Your task to perform on an android device: allow cookies in the chrome app Image 0: 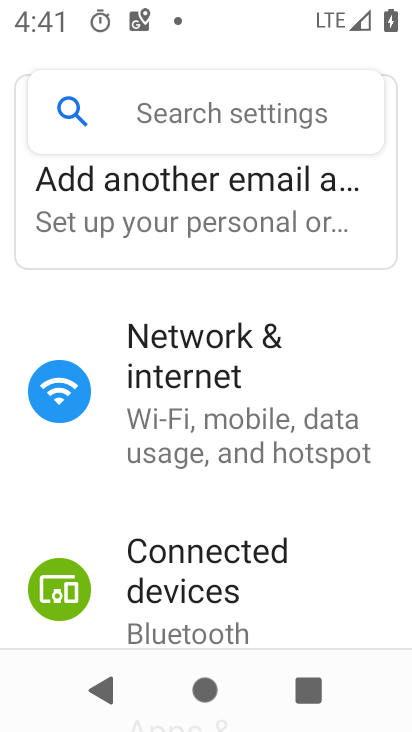
Step 0: press home button
Your task to perform on an android device: allow cookies in the chrome app Image 1: 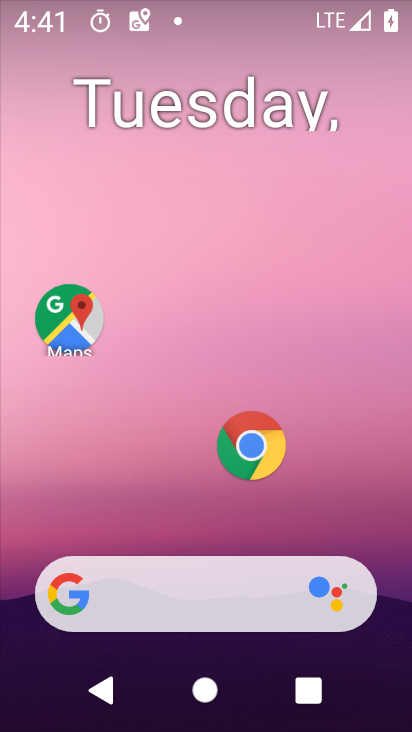
Step 1: click (267, 440)
Your task to perform on an android device: allow cookies in the chrome app Image 2: 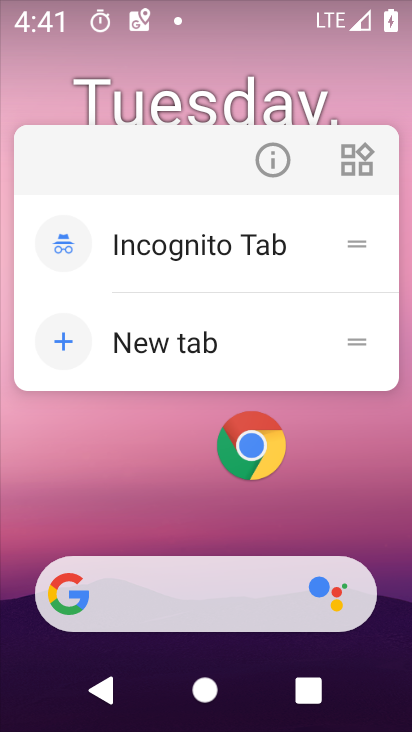
Step 2: click (249, 455)
Your task to perform on an android device: allow cookies in the chrome app Image 3: 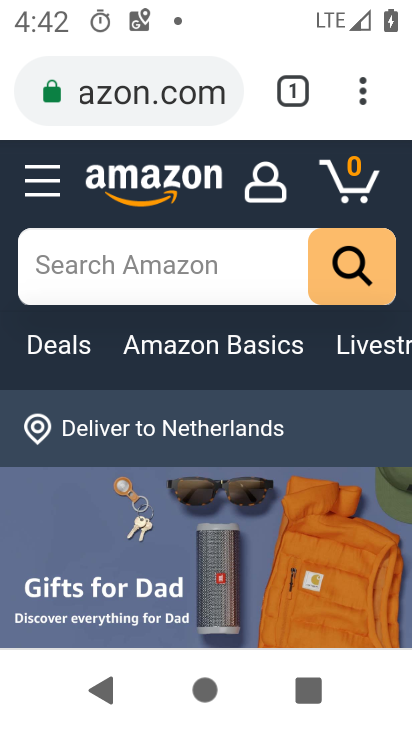
Step 3: click (356, 97)
Your task to perform on an android device: allow cookies in the chrome app Image 4: 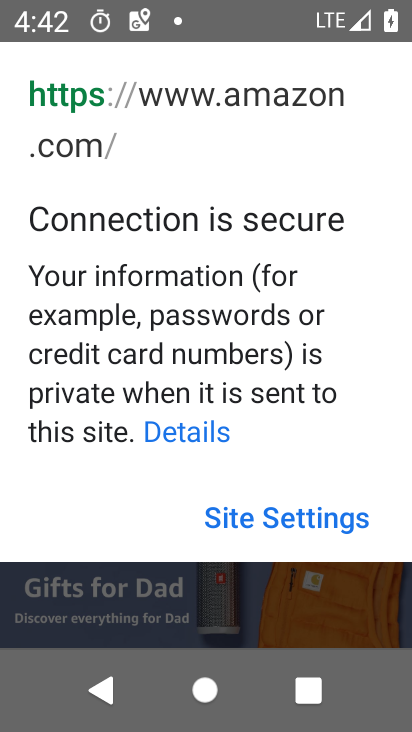
Step 4: click (279, 524)
Your task to perform on an android device: allow cookies in the chrome app Image 5: 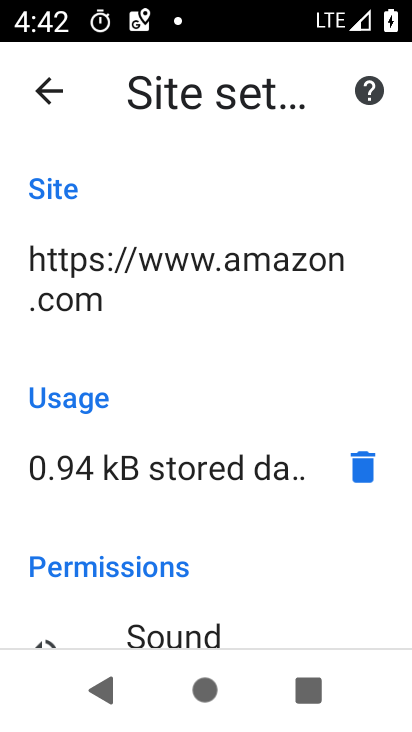
Step 5: drag from (265, 561) to (326, 132)
Your task to perform on an android device: allow cookies in the chrome app Image 6: 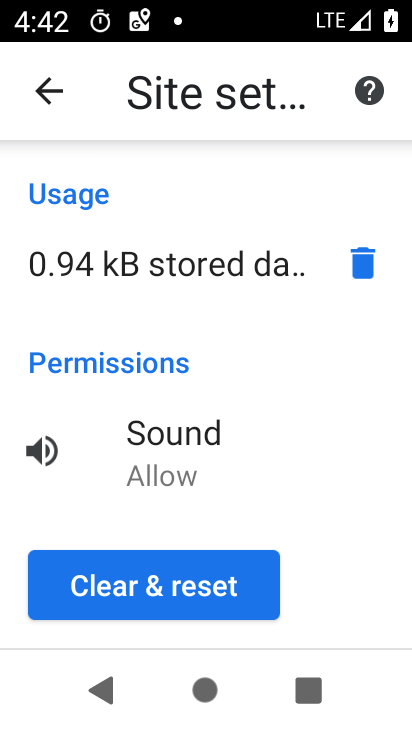
Step 6: click (163, 590)
Your task to perform on an android device: allow cookies in the chrome app Image 7: 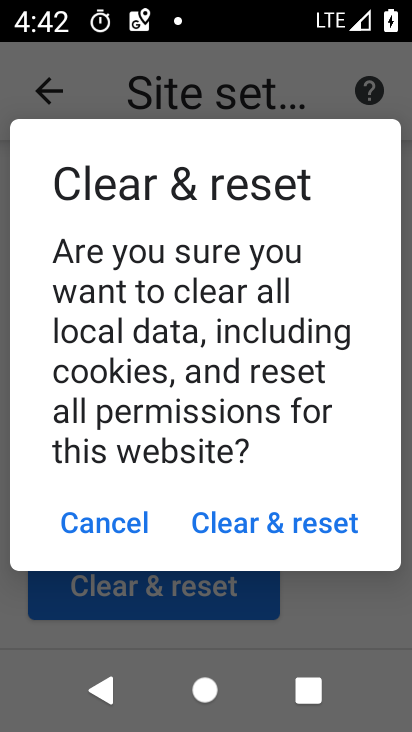
Step 7: click (230, 525)
Your task to perform on an android device: allow cookies in the chrome app Image 8: 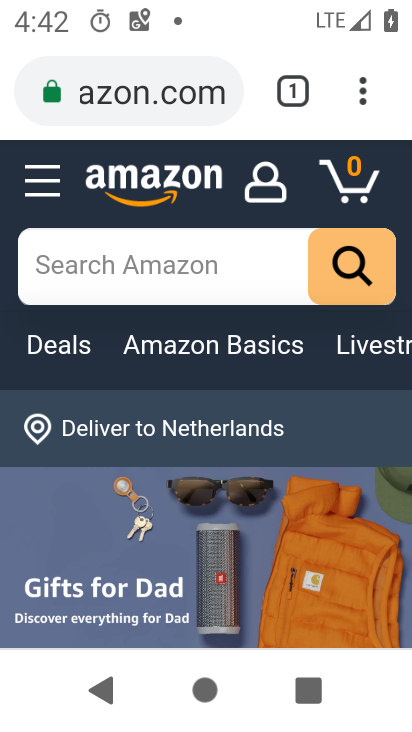
Step 8: click (360, 90)
Your task to perform on an android device: allow cookies in the chrome app Image 9: 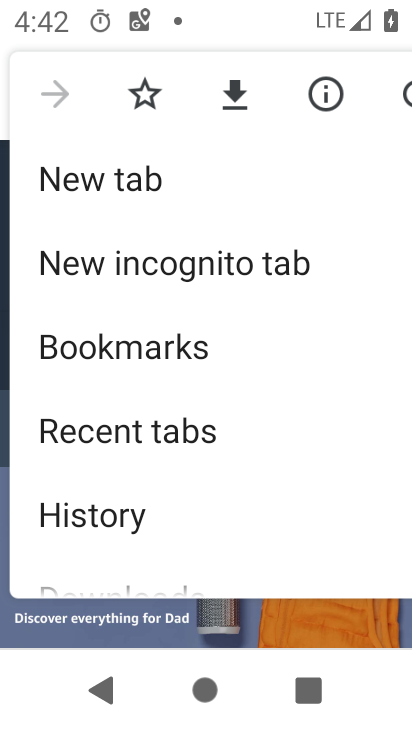
Step 9: click (119, 519)
Your task to perform on an android device: allow cookies in the chrome app Image 10: 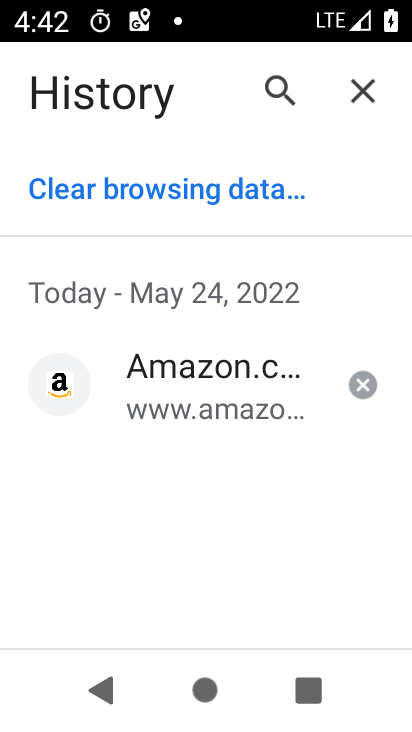
Step 10: click (164, 197)
Your task to perform on an android device: allow cookies in the chrome app Image 11: 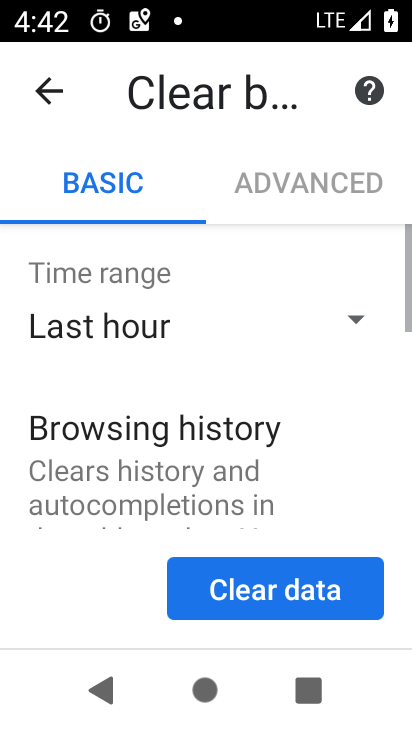
Step 11: drag from (187, 505) to (239, 127)
Your task to perform on an android device: allow cookies in the chrome app Image 12: 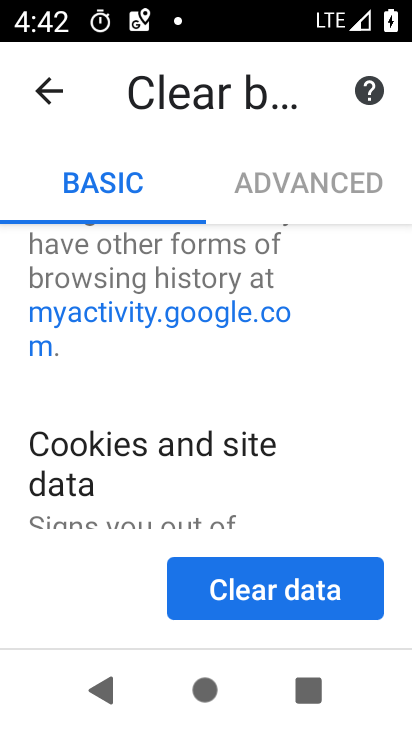
Step 12: drag from (193, 493) to (198, 256)
Your task to perform on an android device: allow cookies in the chrome app Image 13: 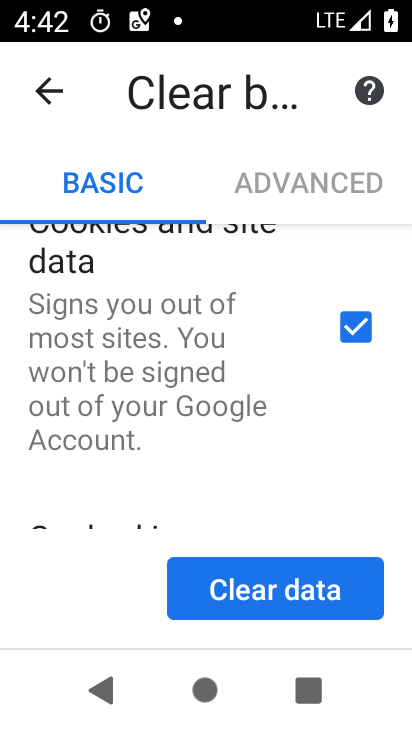
Step 13: drag from (158, 474) to (177, 216)
Your task to perform on an android device: allow cookies in the chrome app Image 14: 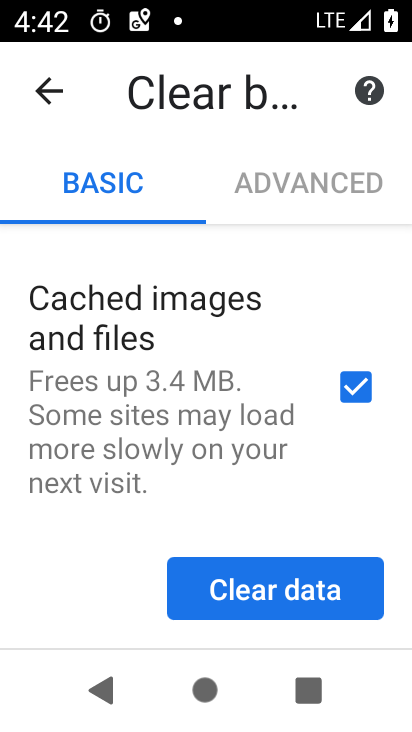
Step 14: drag from (175, 466) to (236, 188)
Your task to perform on an android device: allow cookies in the chrome app Image 15: 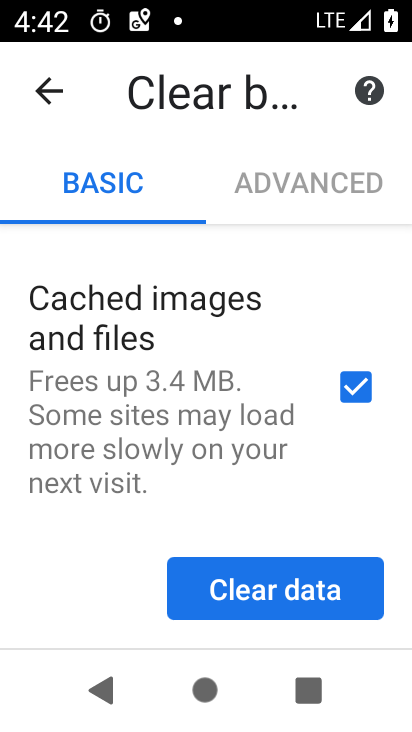
Step 15: click (320, 408)
Your task to perform on an android device: allow cookies in the chrome app Image 16: 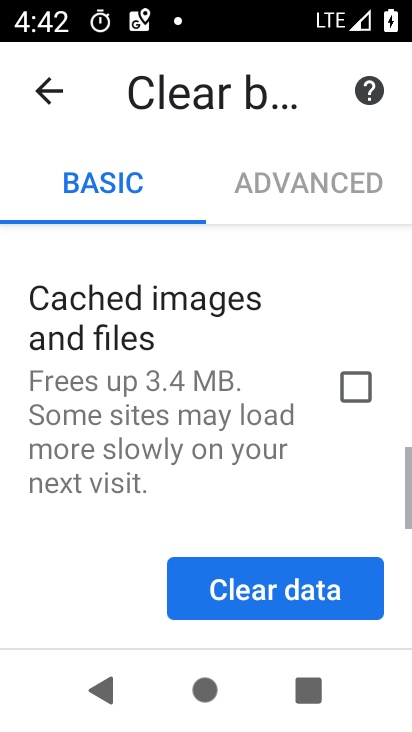
Step 16: drag from (247, 325) to (198, 728)
Your task to perform on an android device: allow cookies in the chrome app Image 17: 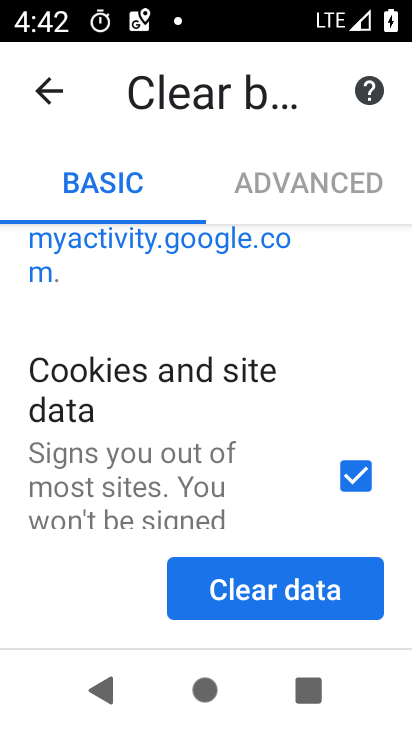
Step 17: drag from (232, 365) to (223, 557)
Your task to perform on an android device: allow cookies in the chrome app Image 18: 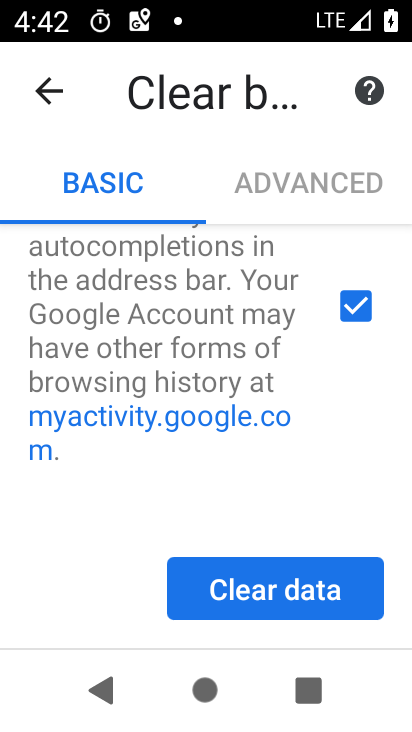
Step 18: click (344, 305)
Your task to perform on an android device: allow cookies in the chrome app Image 19: 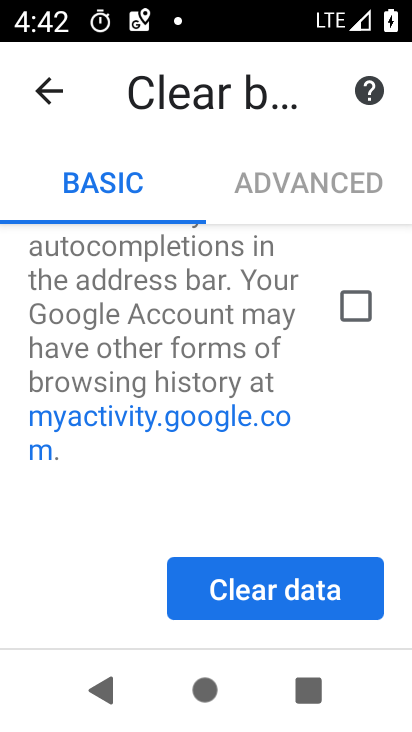
Step 19: click (289, 600)
Your task to perform on an android device: allow cookies in the chrome app Image 20: 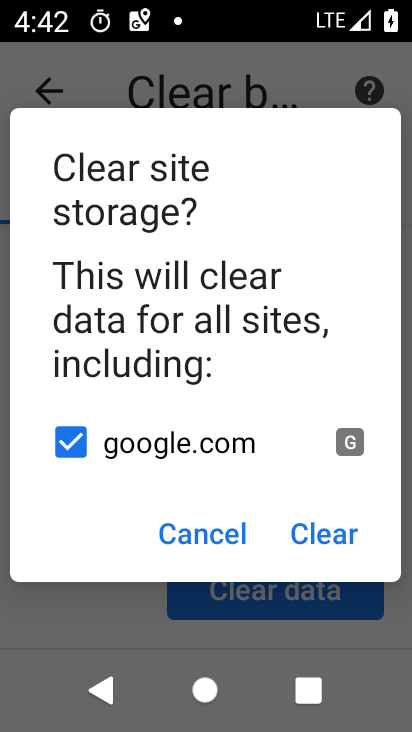
Step 20: click (340, 534)
Your task to perform on an android device: allow cookies in the chrome app Image 21: 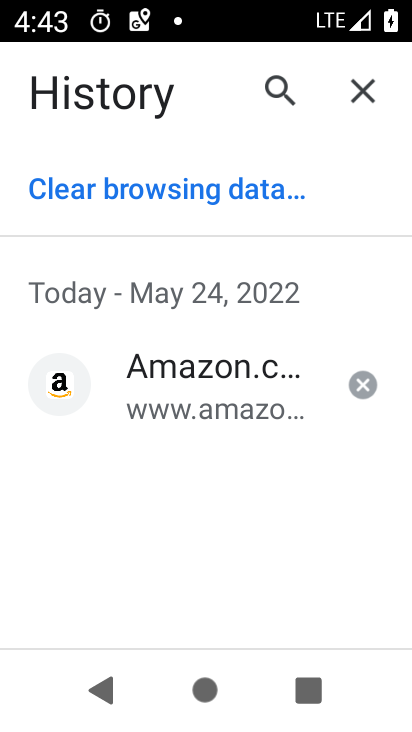
Step 21: task complete